Your task to perform on an android device: open the mobile data screen to see how much data has been used Image 0: 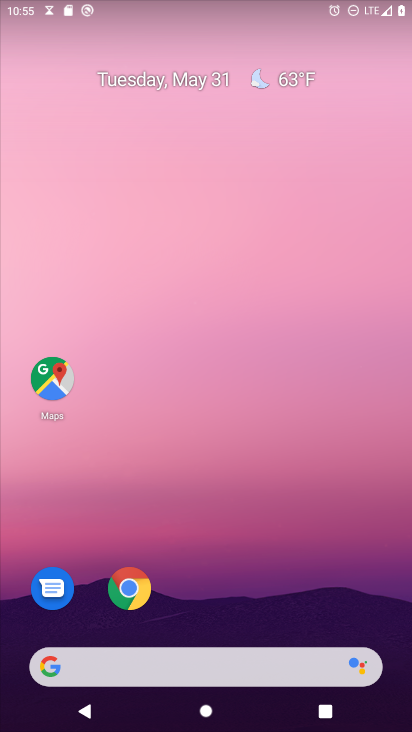
Step 0: drag from (270, 582) to (217, 42)
Your task to perform on an android device: open the mobile data screen to see how much data has been used Image 1: 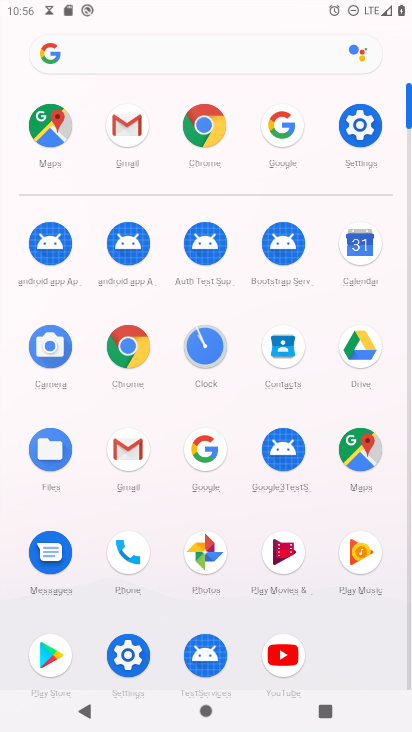
Step 1: click (359, 124)
Your task to perform on an android device: open the mobile data screen to see how much data has been used Image 2: 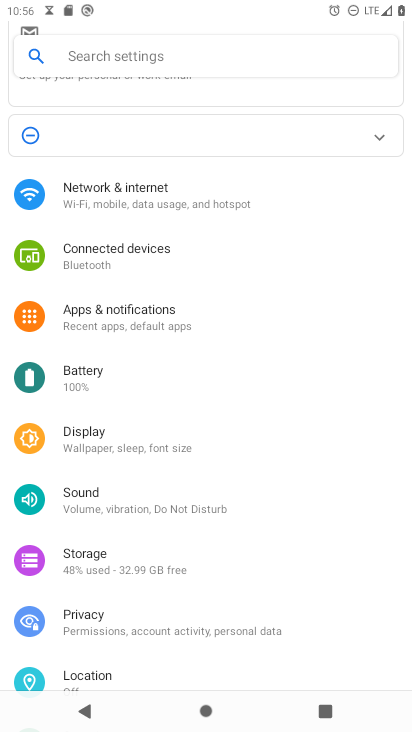
Step 2: click (177, 205)
Your task to perform on an android device: open the mobile data screen to see how much data has been used Image 3: 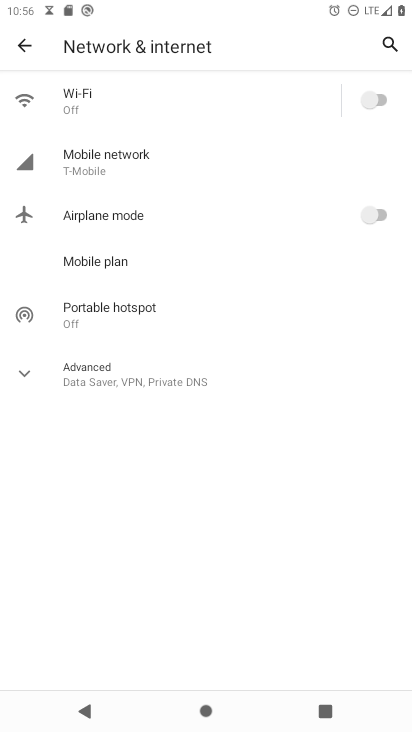
Step 3: click (126, 155)
Your task to perform on an android device: open the mobile data screen to see how much data has been used Image 4: 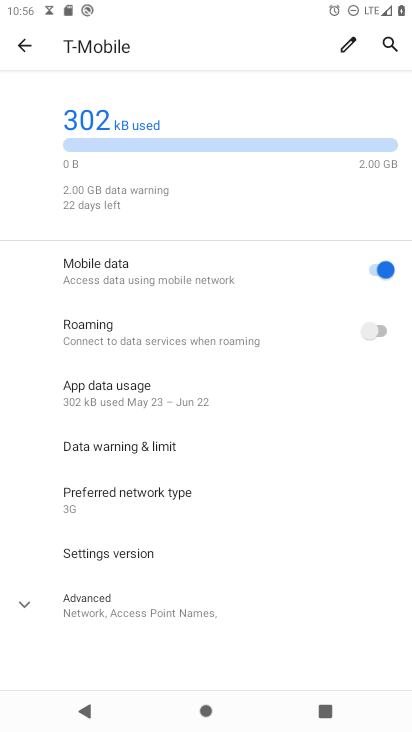
Step 4: task complete